Your task to perform on an android device: open a bookmark in the chrome app Image 0: 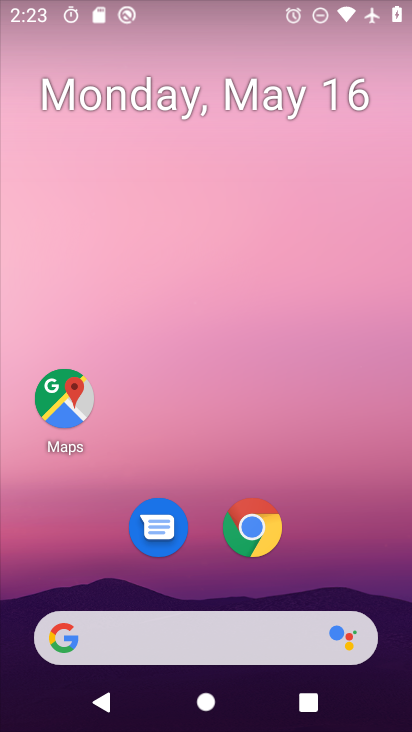
Step 0: press home button
Your task to perform on an android device: open a bookmark in the chrome app Image 1: 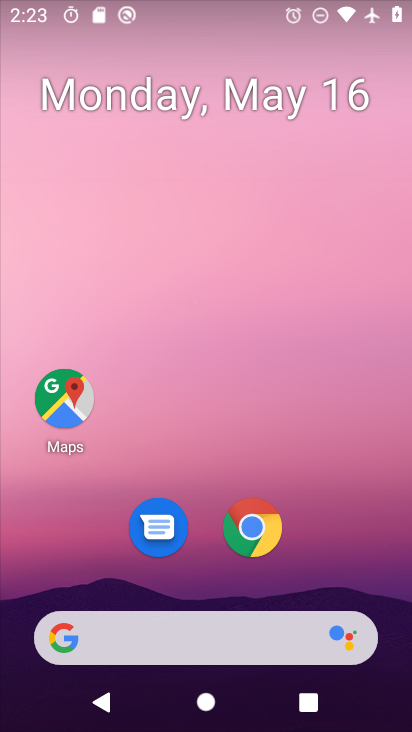
Step 1: click (255, 539)
Your task to perform on an android device: open a bookmark in the chrome app Image 2: 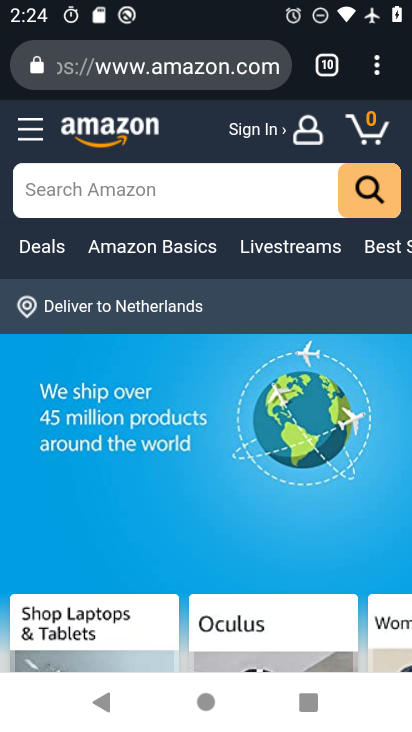
Step 2: task complete